Your task to perform on an android device: Open Youtube and go to "Your channel" Image 0: 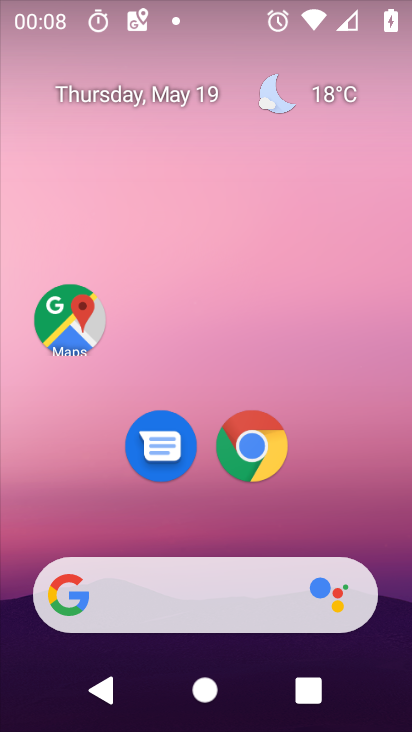
Step 0: press home button
Your task to perform on an android device: Open Youtube and go to "Your channel" Image 1: 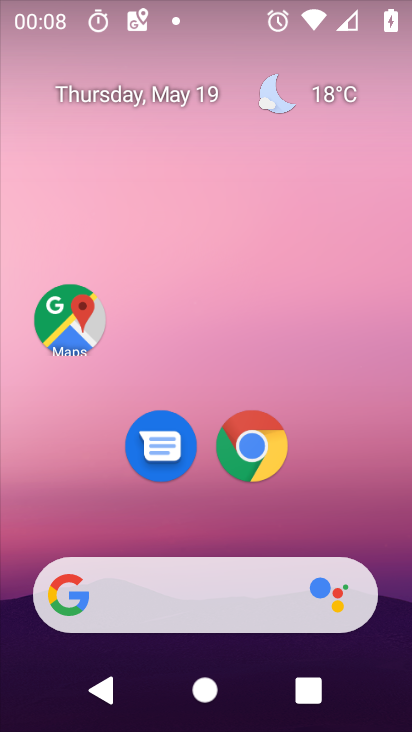
Step 1: drag from (195, 606) to (299, 269)
Your task to perform on an android device: Open Youtube and go to "Your channel" Image 2: 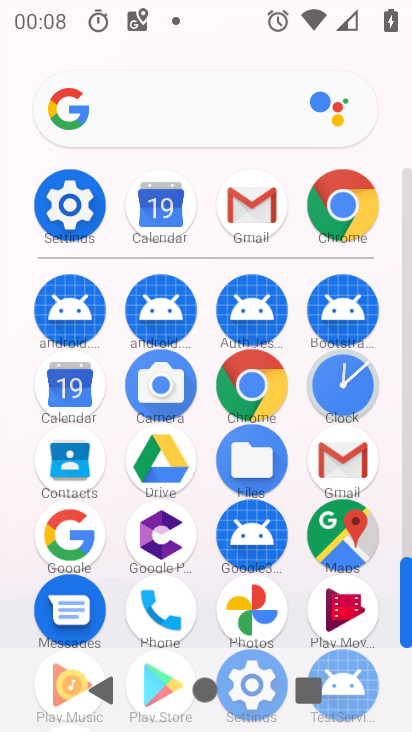
Step 2: drag from (224, 482) to (308, 206)
Your task to perform on an android device: Open Youtube and go to "Your channel" Image 3: 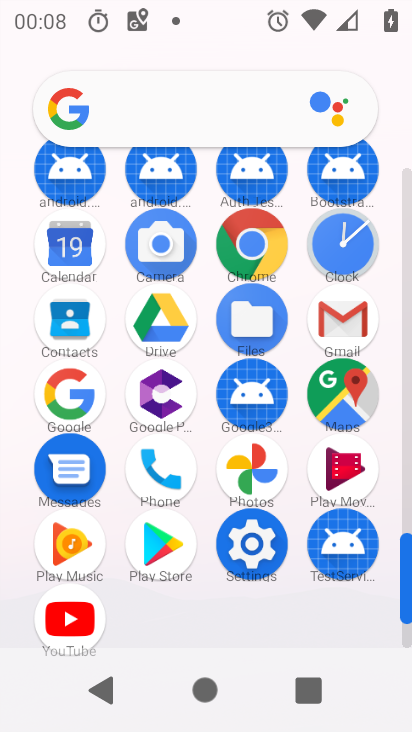
Step 3: click (67, 615)
Your task to perform on an android device: Open Youtube and go to "Your channel" Image 4: 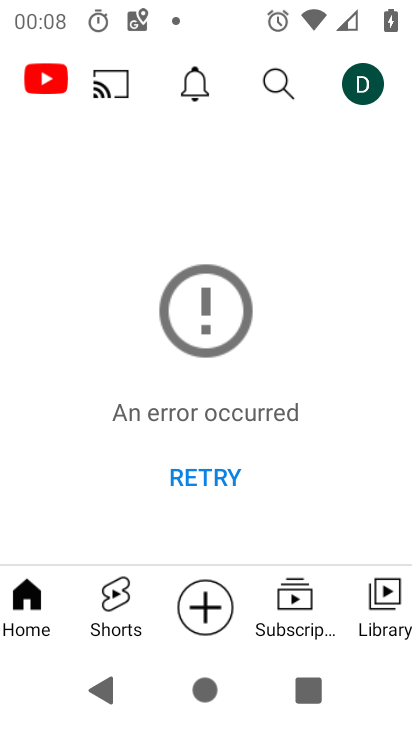
Step 4: click (201, 477)
Your task to perform on an android device: Open Youtube and go to "Your channel" Image 5: 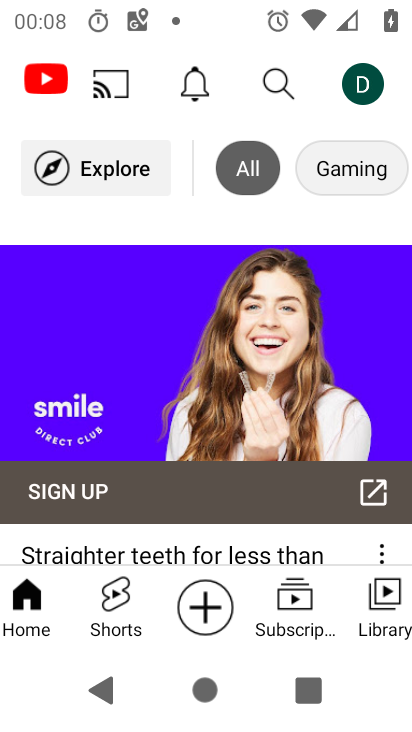
Step 5: click (364, 88)
Your task to perform on an android device: Open Youtube and go to "Your channel" Image 6: 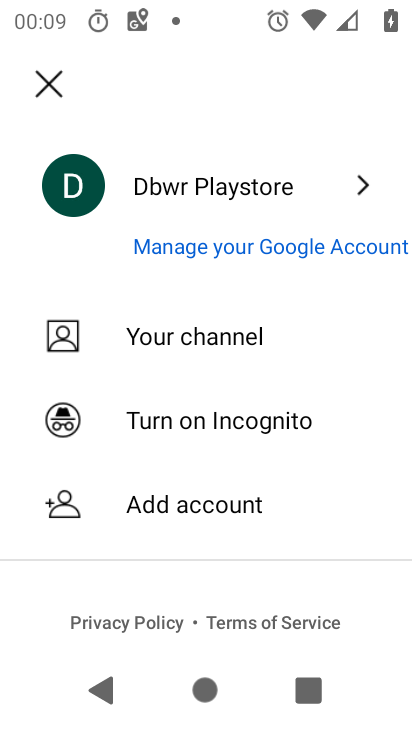
Step 6: click (208, 344)
Your task to perform on an android device: Open Youtube and go to "Your channel" Image 7: 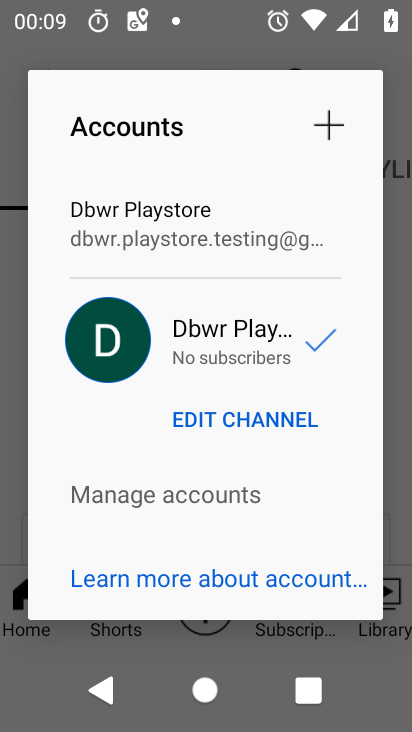
Step 7: drag from (212, 513) to (295, 210)
Your task to perform on an android device: Open Youtube and go to "Your channel" Image 8: 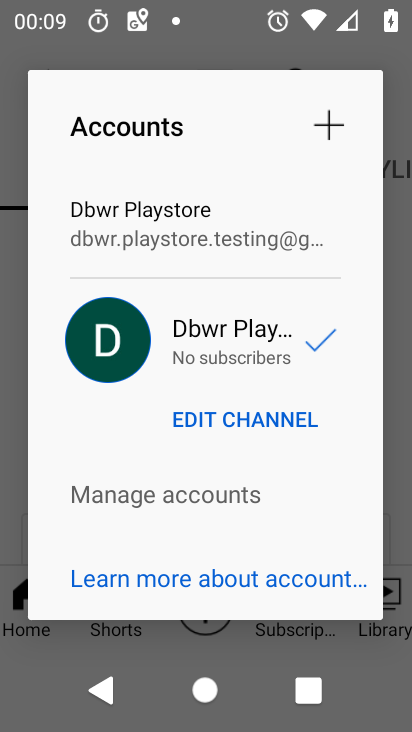
Step 8: click (395, 302)
Your task to perform on an android device: Open Youtube and go to "Your channel" Image 9: 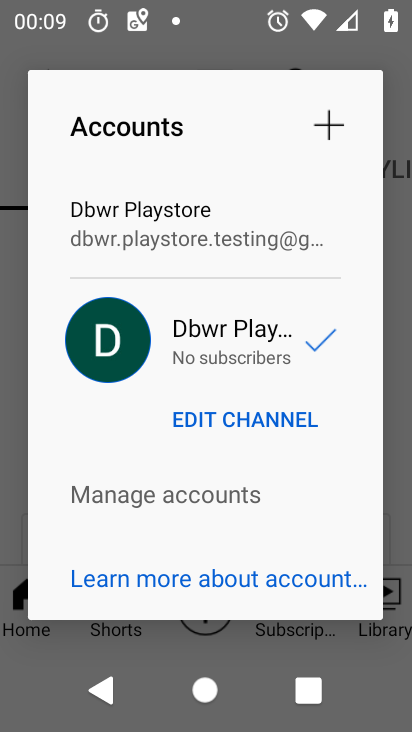
Step 9: task complete